Your task to perform on an android device: turn on improve location accuracy Image 0: 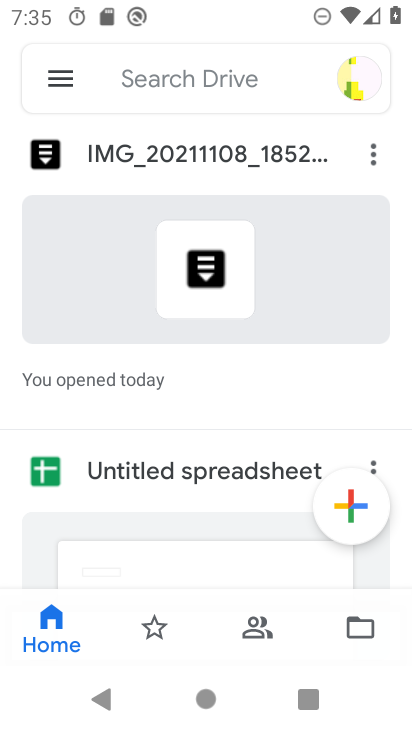
Step 0: press home button
Your task to perform on an android device: turn on improve location accuracy Image 1: 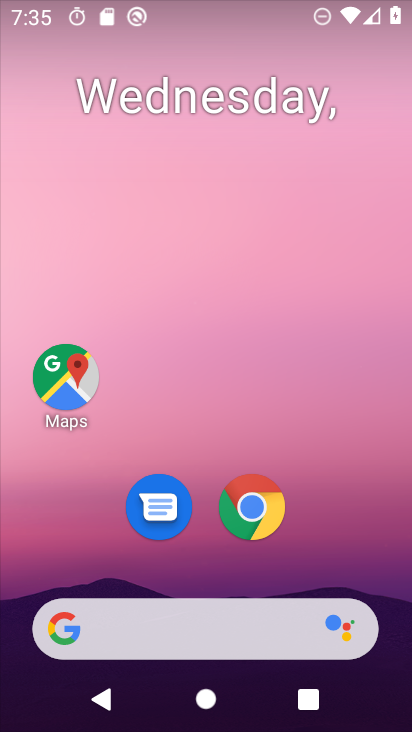
Step 1: drag from (284, 664) to (326, 203)
Your task to perform on an android device: turn on improve location accuracy Image 2: 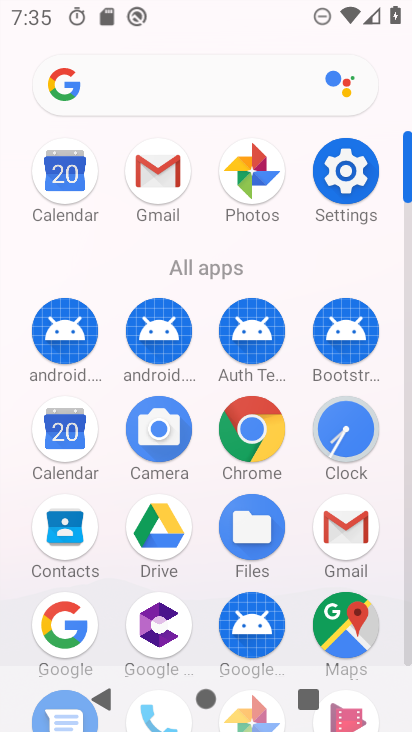
Step 2: click (338, 191)
Your task to perform on an android device: turn on improve location accuracy Image 3: 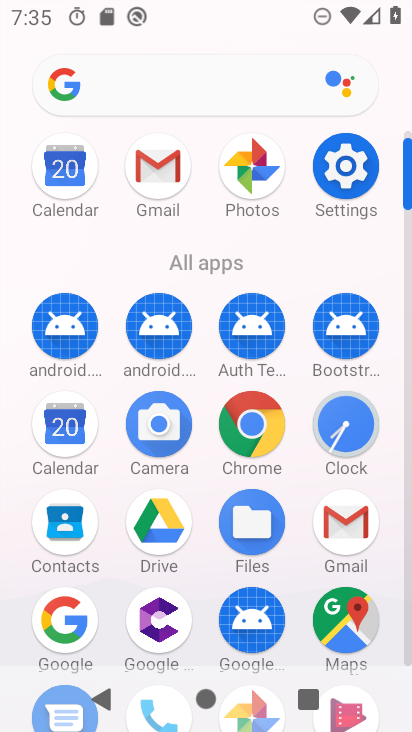
Step 3: click (347, 174)
Your task to perform on an android device: turn on improve location accuracy Image 4: 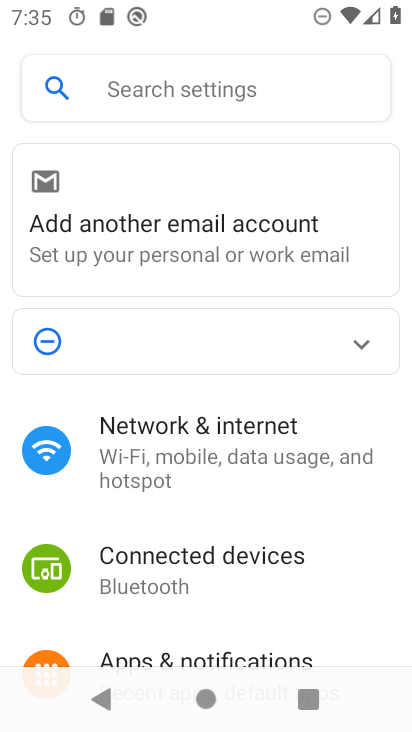
Step 4: click (184, 92)
Your task to perform on an android device: turn on improve location accuracy Image 5: 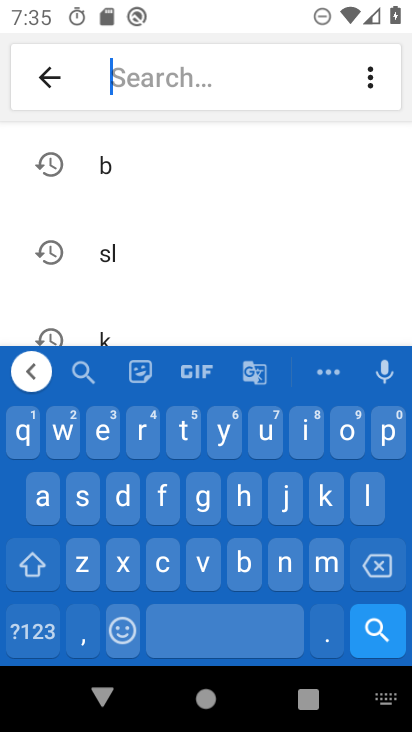
Step 5: click (367, 505)
Your task to perform on an android device: turn on improve location accuracy Image 6: 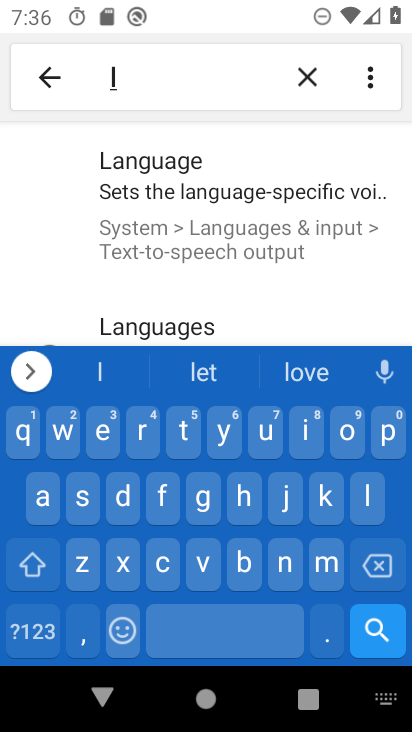
Step 6: drag from (202, 282) to (236, 139)
Your task to perform on an android device: turn on improve location accuracy Image 7: 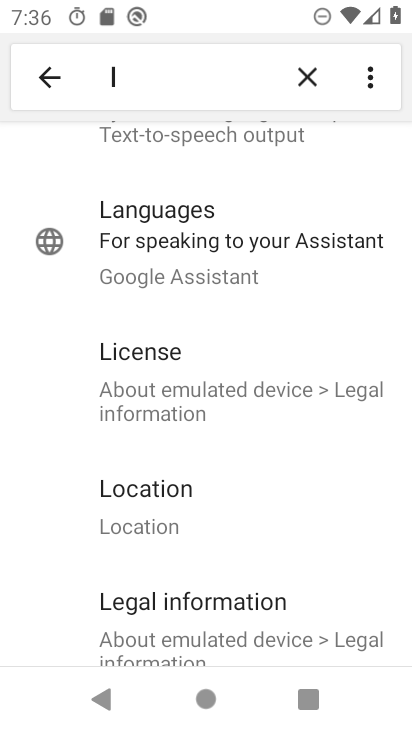
Step 7: click (158, 495)
Your task to perform on an android device: turn on improve location accuracy Image 8: 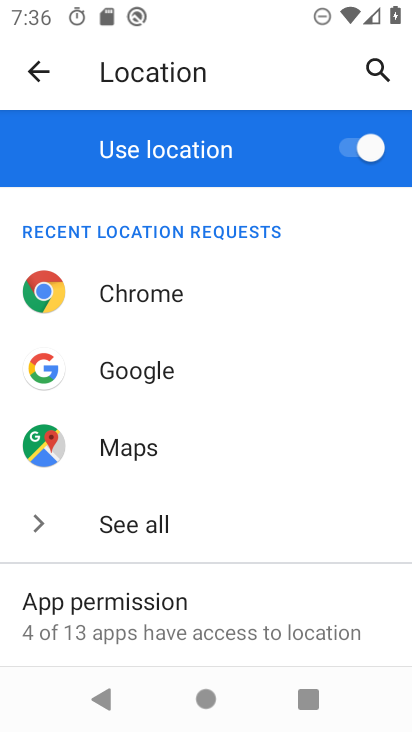
Step 8: drag from (163, 569) to (169, 274)
Your task to perform on an android device: turn on improve location accuracy Image 9: 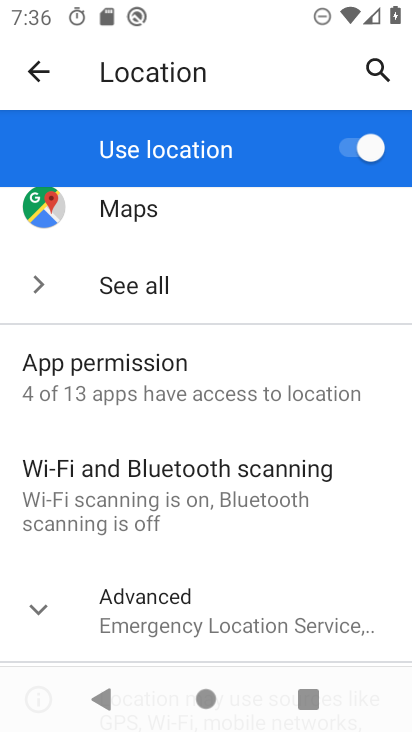
Step 9: click (113, 590)
Your task to perform on an android device: turn on improve location accuracy Image 10: 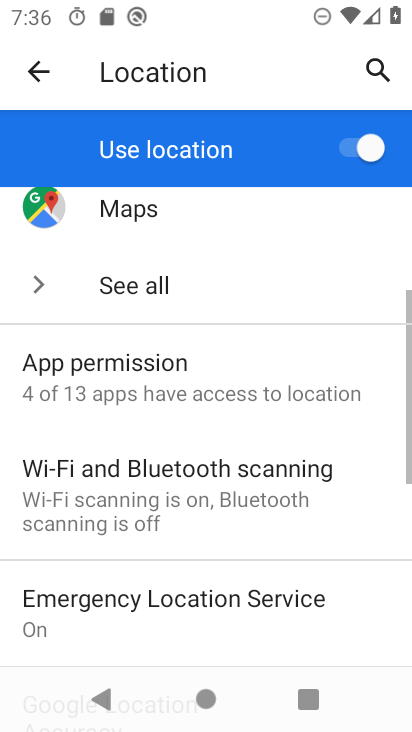
Step 10: drag from (226, 474) to (227, 305)
Your task to perform on an android device: turn on improve location accuracy Image 11: 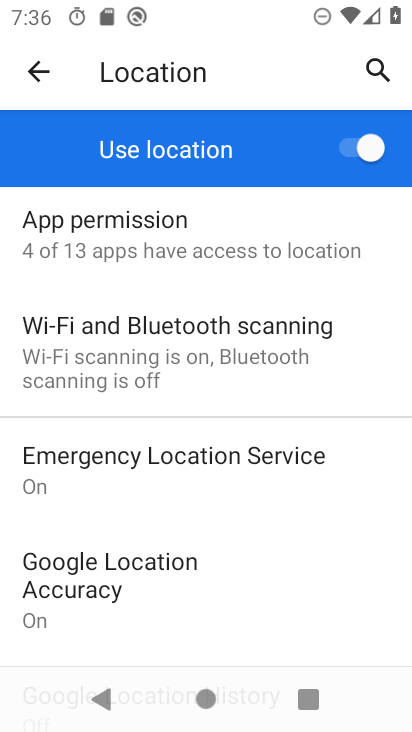
Step 11: click (146, 577)
Your task to perform on an android device: turn on improve location accuracy Image 12: 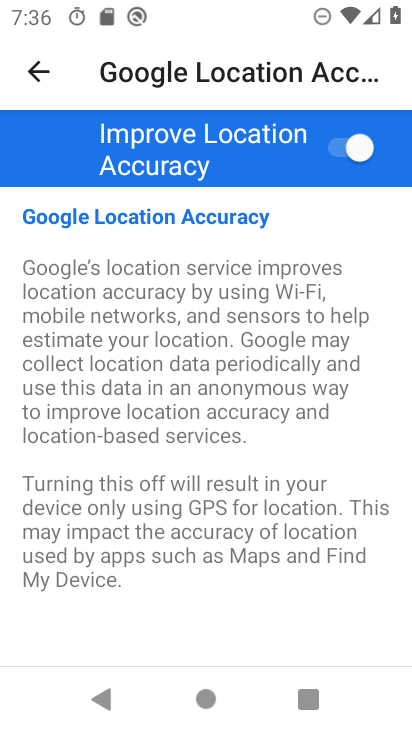
Step 12: click (349, 164)
Your task to perform on an android device: turn on improve location accuracy Image 13: 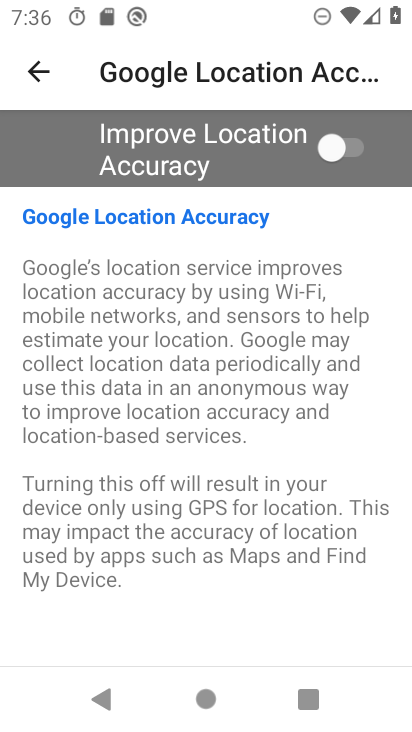
Step 13: click (349, 164)
Your task to perform on an android device: turn on improve location accuracy Image 14: 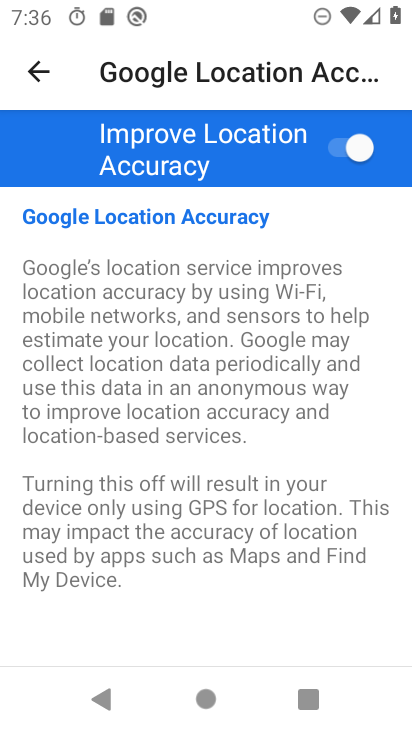
Step 14: task complete